Your task to perform on an android device: Open settings Image 0: 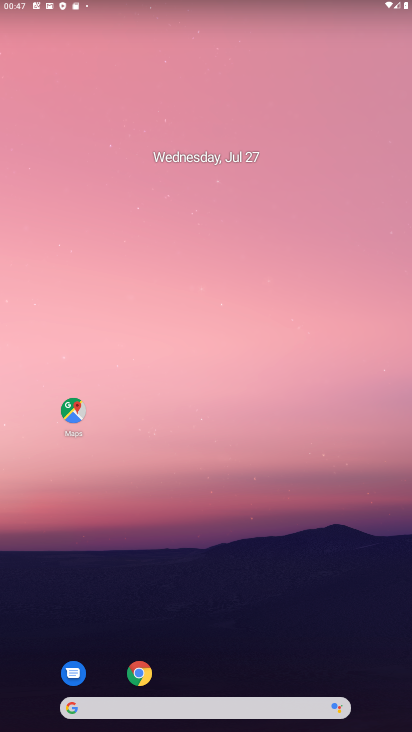
Step 0: drag from (278, 589) to (304, 27)
Your task to perform on an android device: Open settings Image 1: 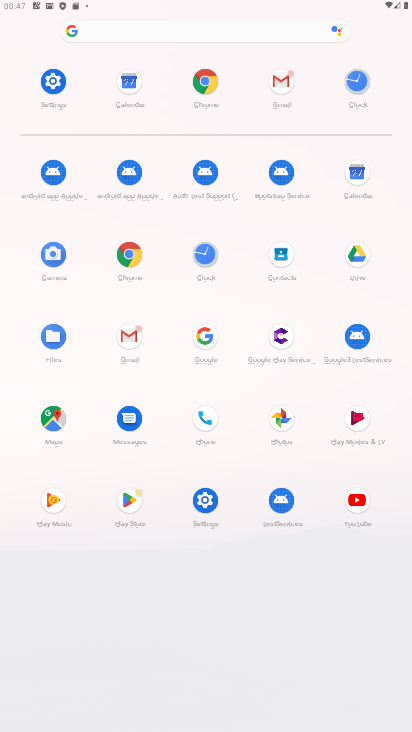
Step 1: click (52, 79)
Your task to perform on an android device: Open settings Image 2: 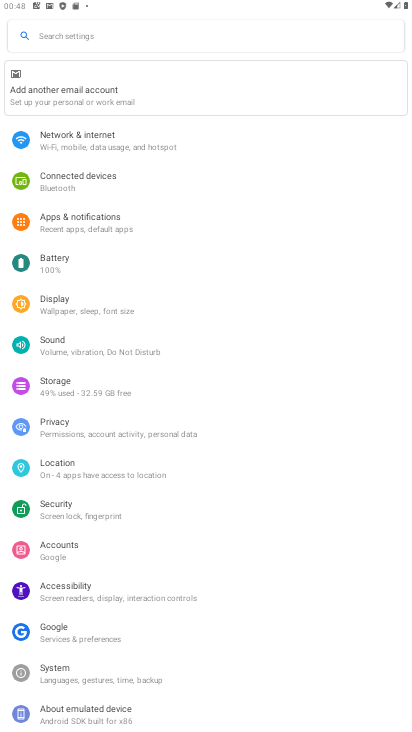
Step 2: task complete